Your task to perform on an android device: turn off airplane mode Image 0: 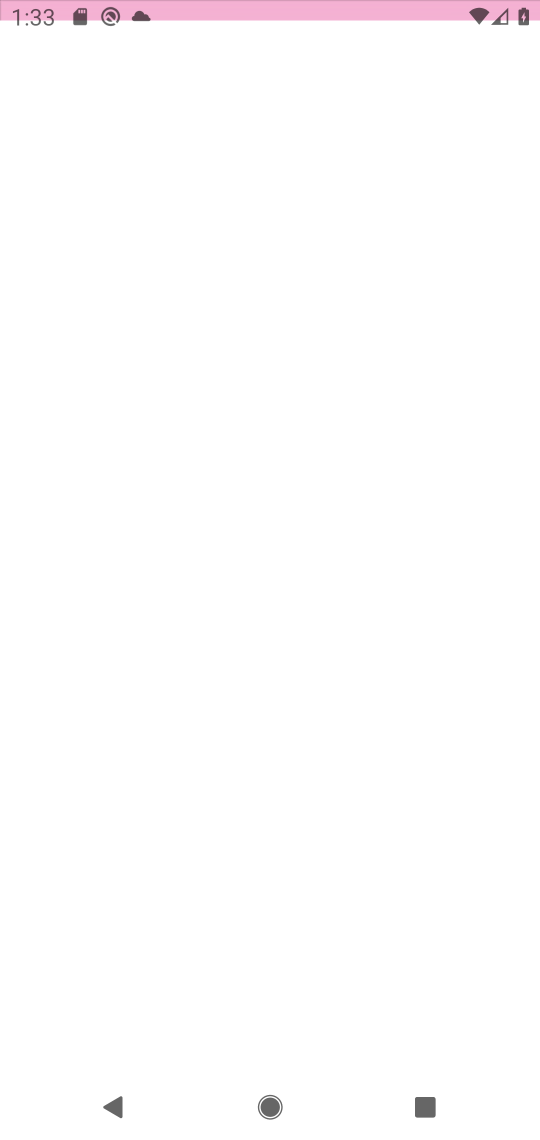
Step 0: press home button
Your task to perform on an android device: turn off airplane mode Image 1: 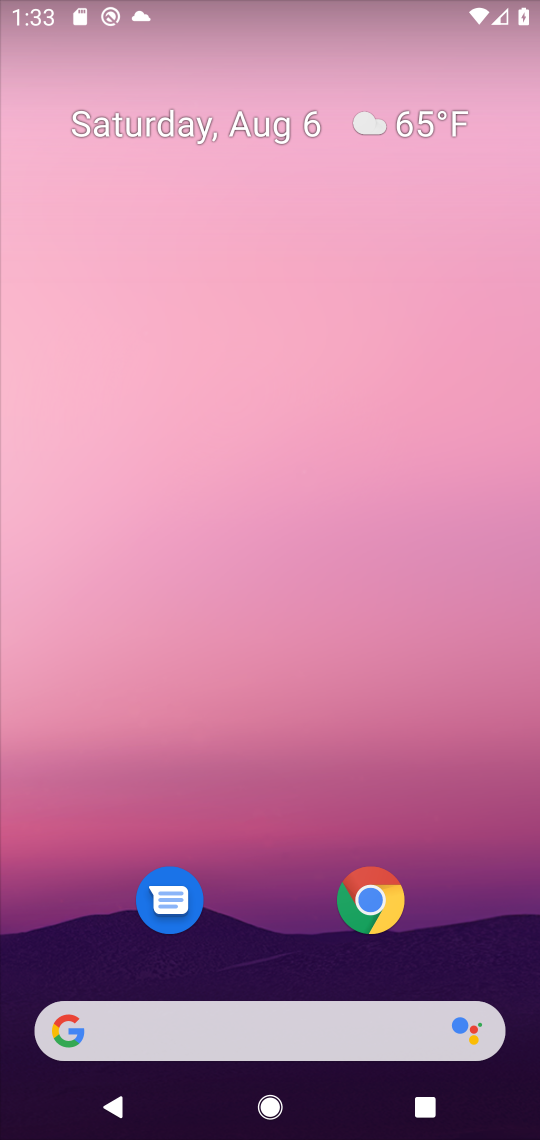
Step 1: task complete